Your task to perform on an android device: open device folders in google photos Image 0: 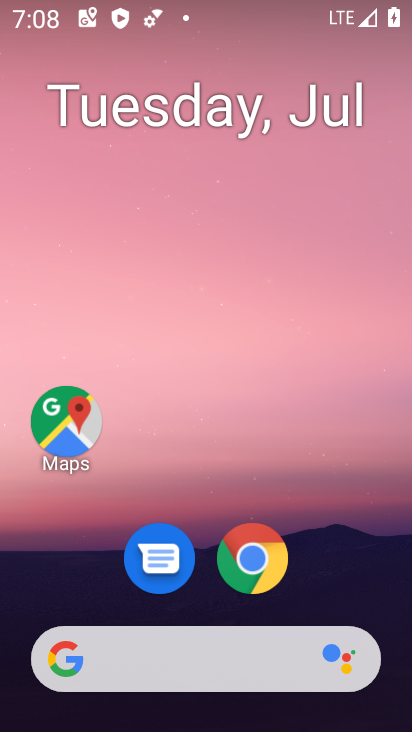
Step 0: drag from (196, 567) to (254, 63)
Your task to perform on an android device: open device folders in google photos Image 1: 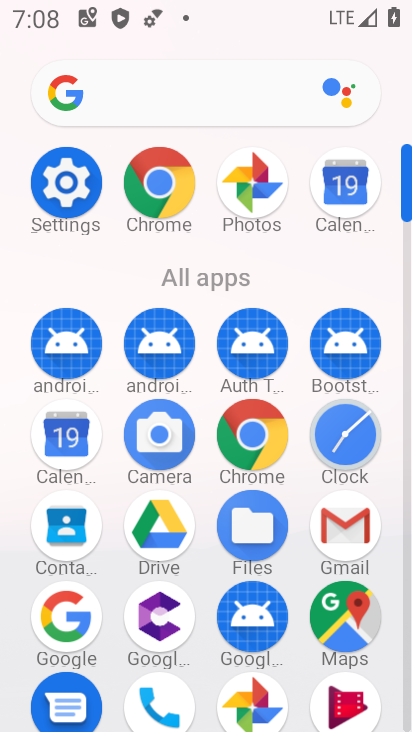
Step 1: click (261, 172)
Your task to perform on an android device: open device folders in google photos Image 2: 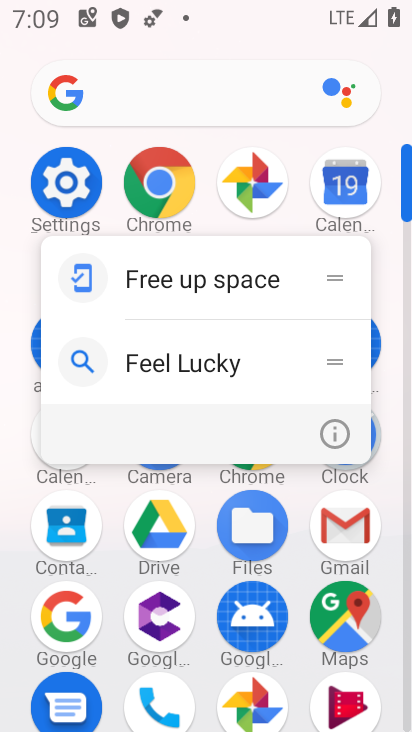
Step 2: click (229, 189)
Your task to perform on an android device: open device folders in google photos Image 3: 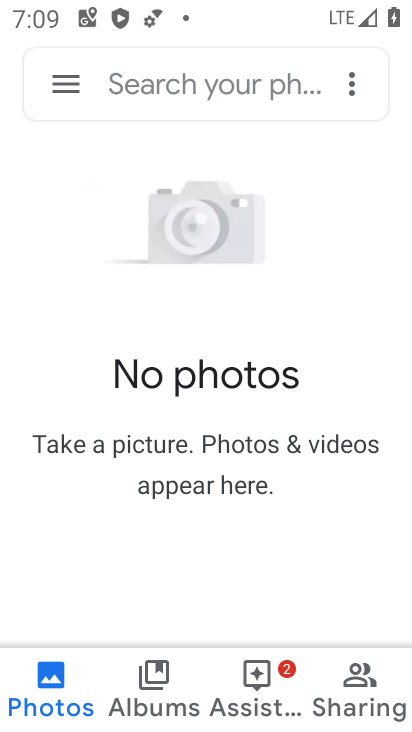
Step 3: click (83, 76)
Your task to perform on an android device: open device folders in google photos Image 4: 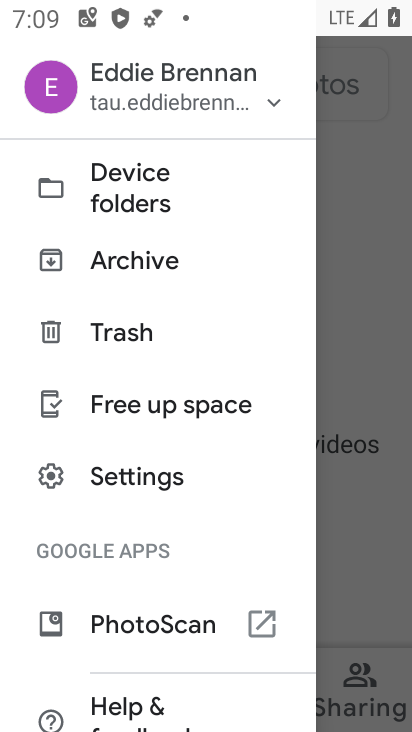
Step 4: click (141, 194)
Your task to perform on an android device: open device folders in google photos Image 5: 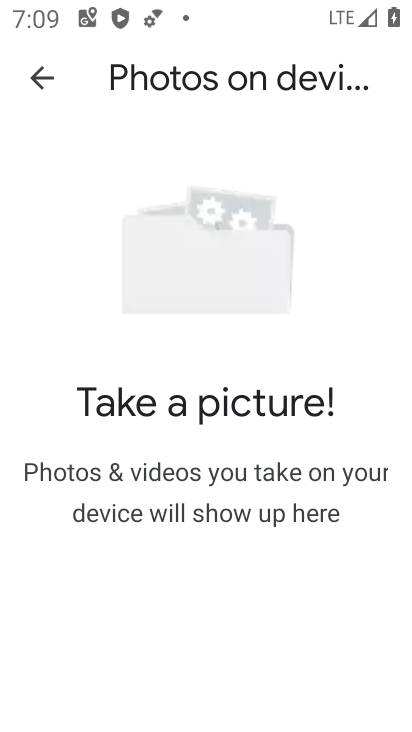
Step 5: task complete